Your task to perform on an android device: see tabs open on other devices in the chrome app Image 0: 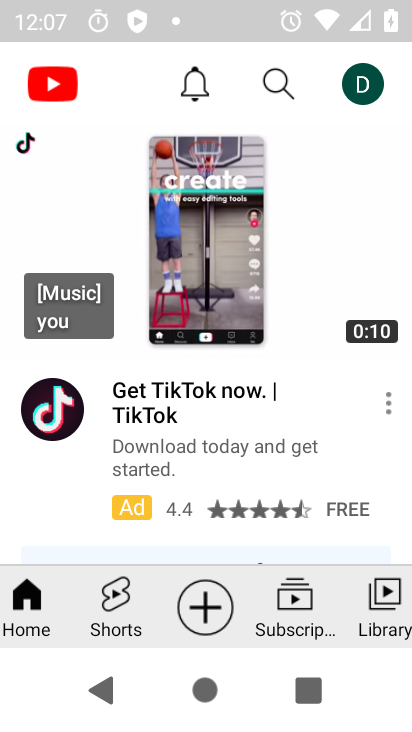
Step 0: press home button
Your task to perform on an android device: see tabs open on other devices in the chrome app Image 1: 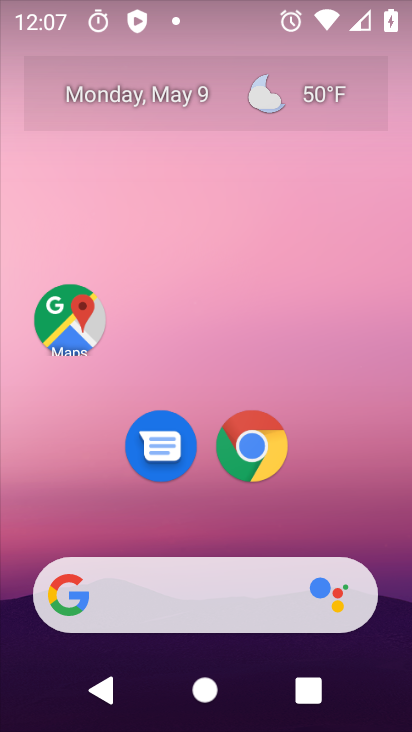
Step 1: click (262, 448)
Your task to perform on an android device: see tabs open on other devices in the chrome app Image 2: 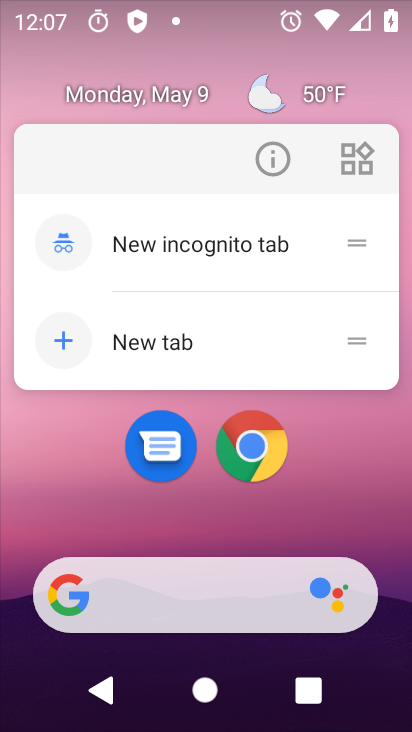
Step 2: click (261, 451)
Your task to perform on an android device: see tabs open on other devices in the chrome app Image 3: 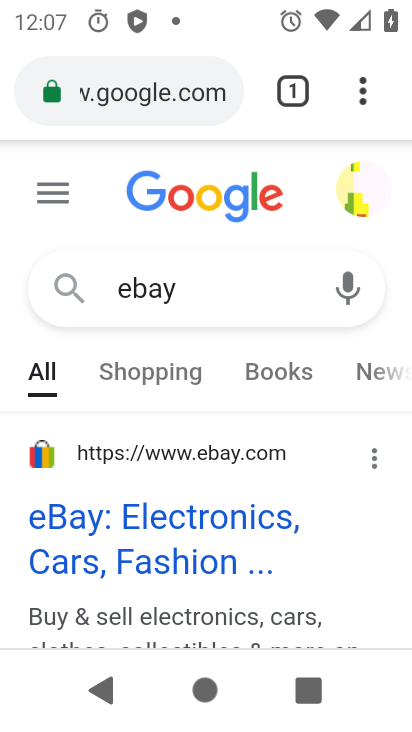
Step 3: click (363, 104)
Your task to perform on an android device: see tabs open on other devices in the chrome app Image 4: 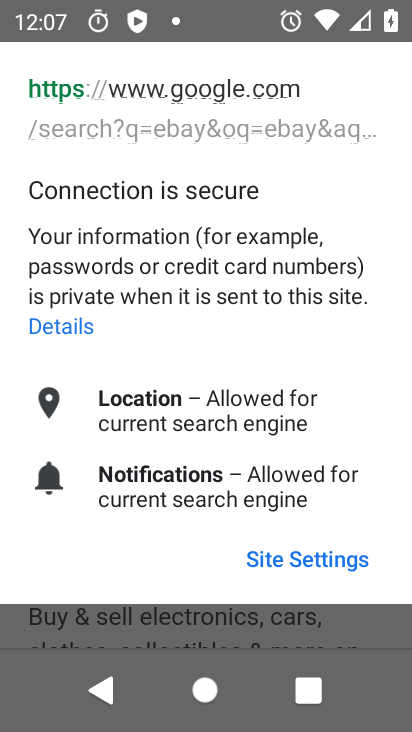
Step 4: click (15, 631)
Your task to perform on an android device: see tabs open on other devices in the chrome app Image 5: 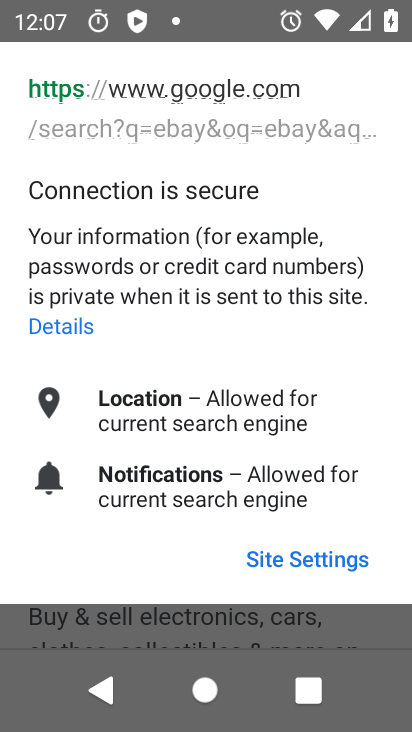
Step 5: click (153, 623)
Your task to perform on an android device: see tabs open on other devices in the chrome app Image 6: 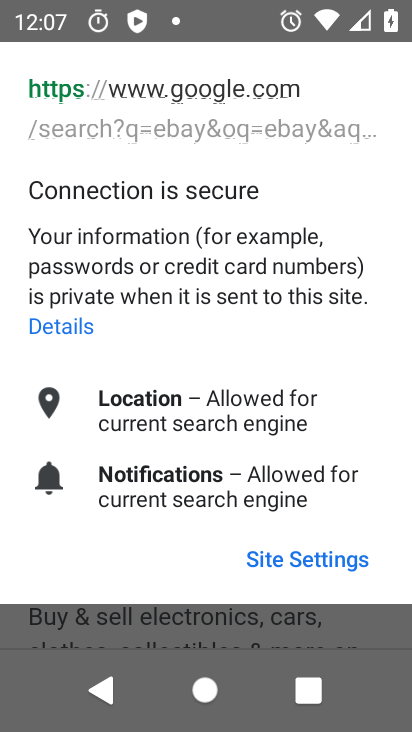
Step 6: click (153, 622)
Your task to perform on an android device: see tabs open on other devices in the chrome app Image 7: 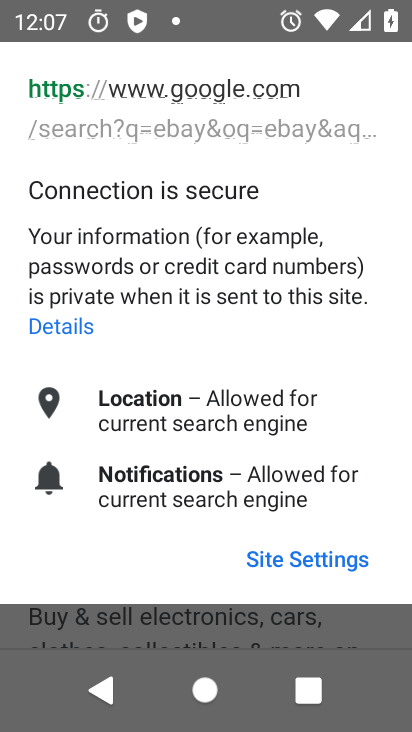
Step 7: press back button
Your task to perform on an android device: see tabs open on other devices in the chrome app Image 8: 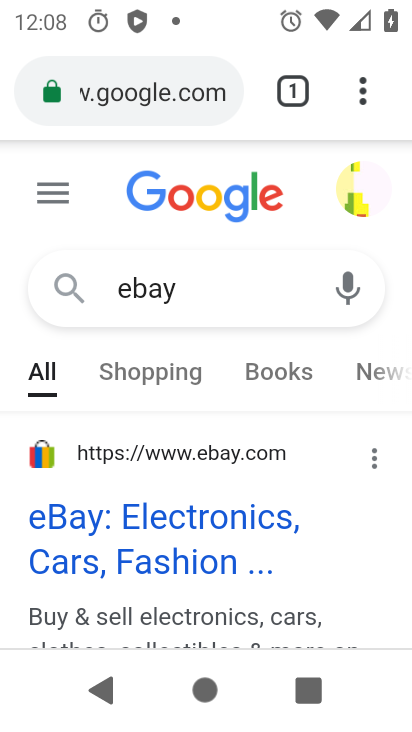
Step 8: click (365, 86)
Your task to perform on an android device: see tabs open on other devices in the chrome app Image 9: 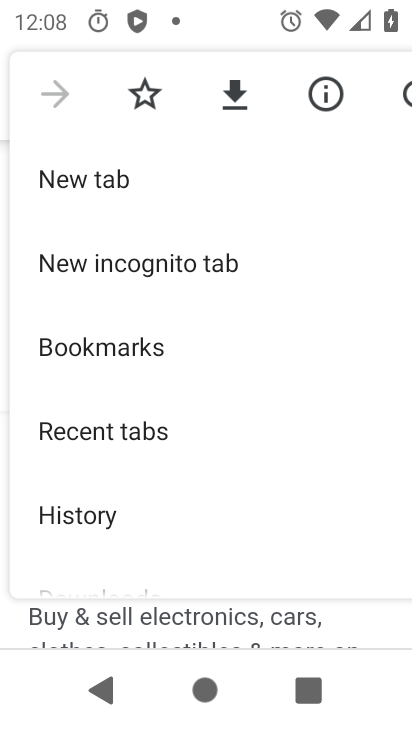
Step 9: click (129, 443)
Your task to perform on an android device: see tabs open on other devices in the chrome app Image 10: 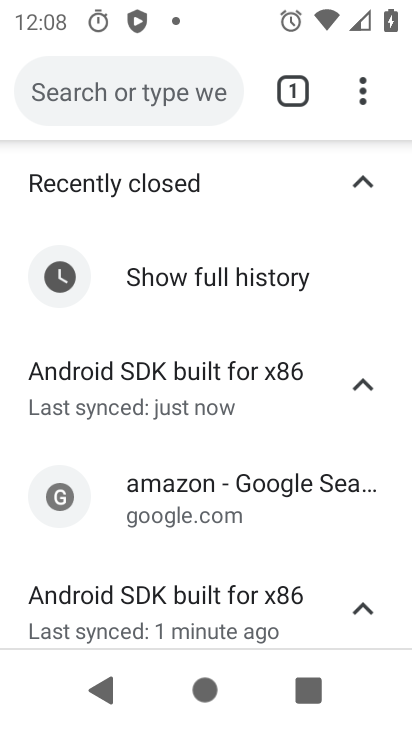
Step 10: task complete